Your task to perform on an android device: turn off improve location accuracy Image 0: 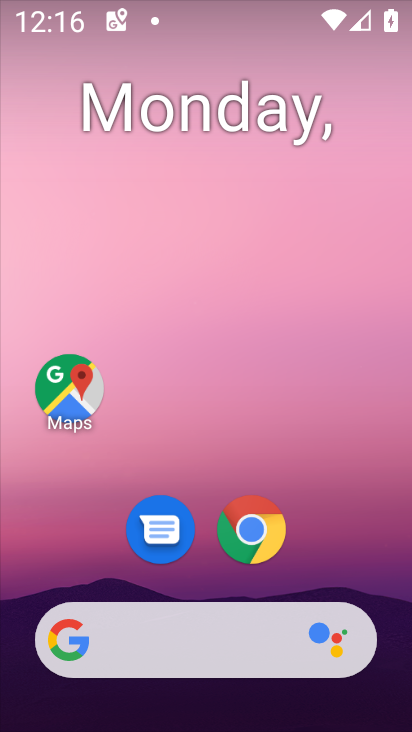
Step 0: drag from (217, 668) to (201, 65)
Your task to perform on an android device: turn off improve location accuracy Image 1: 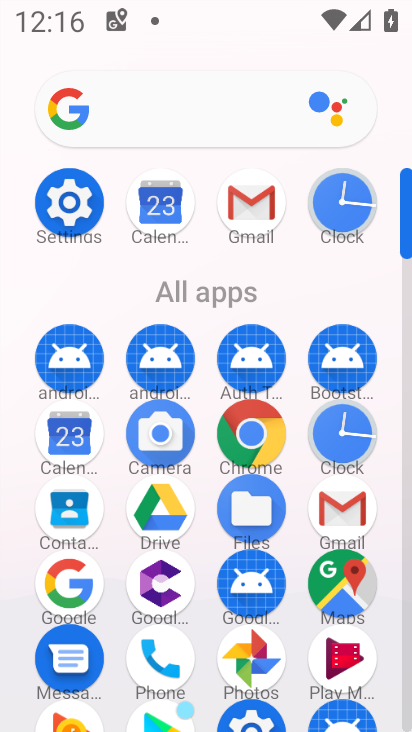
Step 1: click (89, 205)
Your task to perform on an android device: turn off improve location accuracy Image 2: 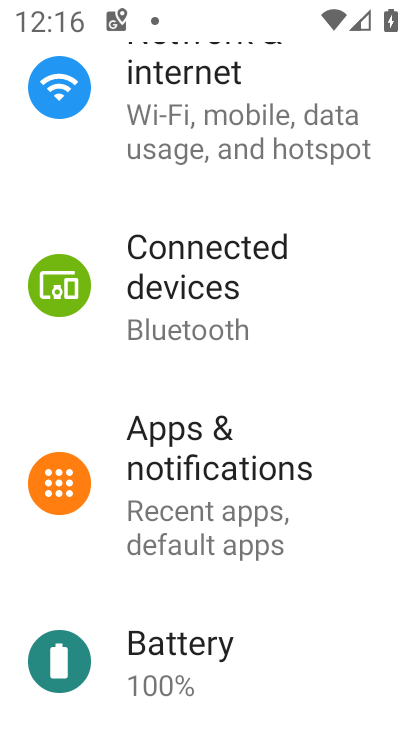
Step 2: drag from (165, 591) to (26, 279)
Your task to perform on an android device: turn off improve location accuracy Image 3: 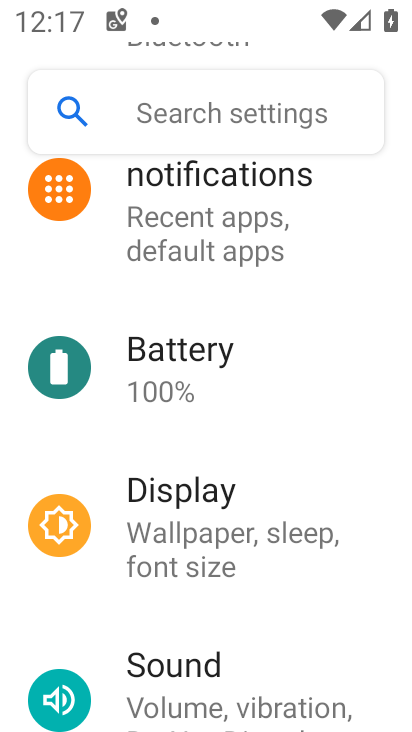
Step 3: drag from (191, 552) to (164, 101)
Your task to perform on an android device: turn off improve location accuracy Image 4: 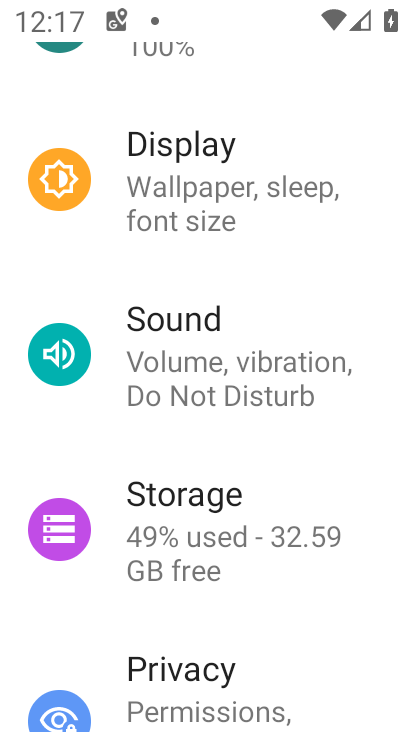
Step 4: drag from (176, 621) to (172, 139)
Your task to perform on an android device: turn off improve location accuracy Image 5: 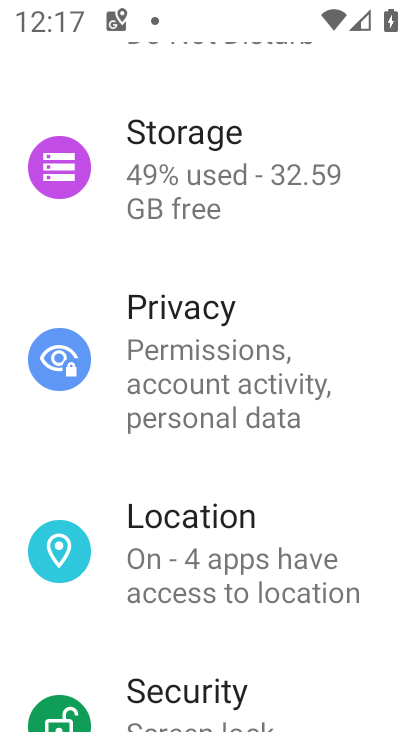
Step 5: click (216, 555)
Your task to perform on an android device: turn off improve location accuracy Image 6: 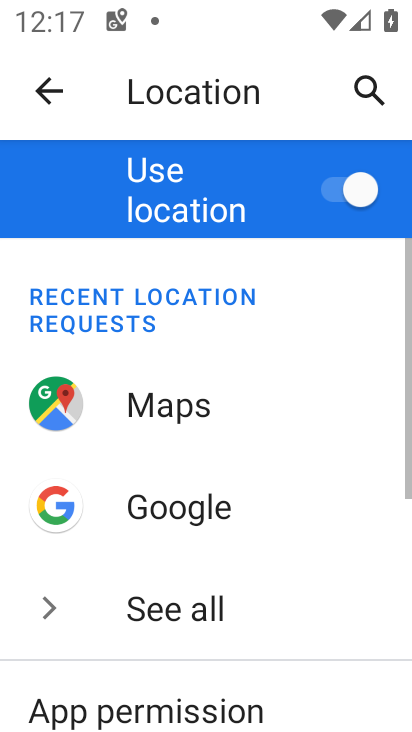
Step 6: drag from (251, 617) to (215, 116)
Your task to perform on an android device: turn off improve location accuracy Image 7: 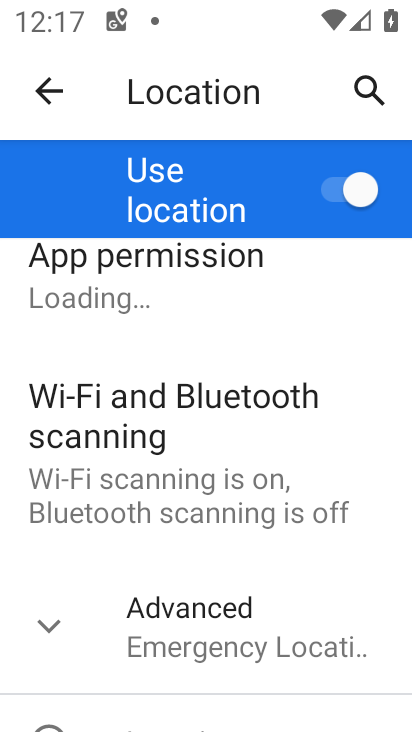
Step 7: click (198, 651)
Your task to perform on an android device: turn off improve location accuracy Image 8: 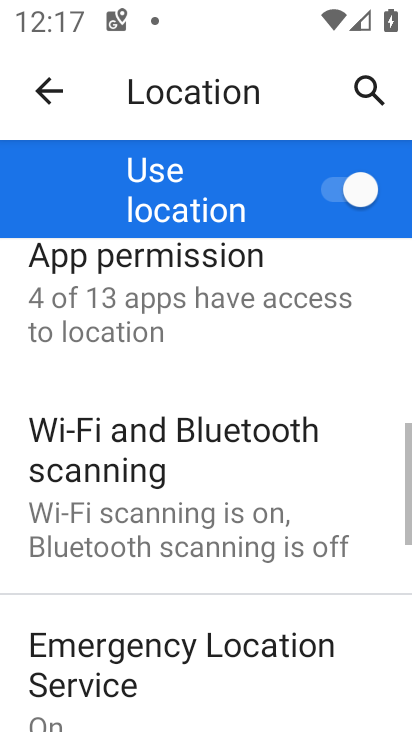
Step 8: drag from (221, 653) to (163, 75)
Your task to perform on an android device: turn off improve location accuracy Image 9: 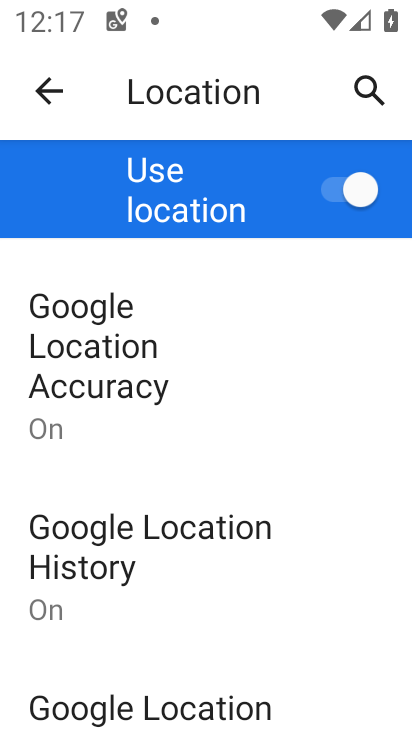
Step 9: click (185, 362)
Your task to perform on an android device: turn off improve location accuracy Image 10: 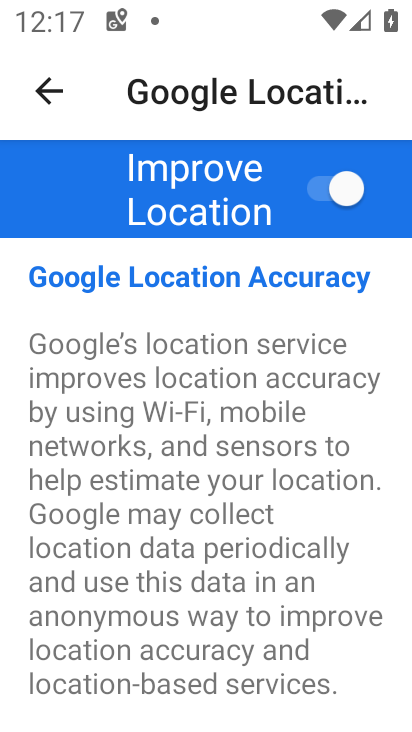
Step 10: click (347, 188)
Your task to perform on an android device: turn off improve location accuracy Image 11: 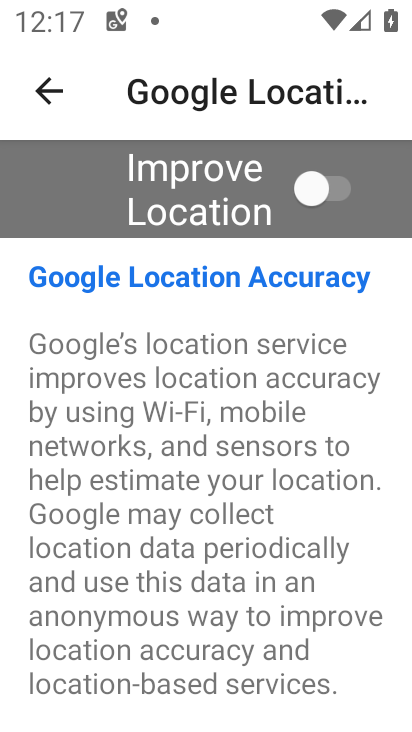
Step 11: task complete